Your task to perform on an android device: turn on translation in the chrome app Image 0: 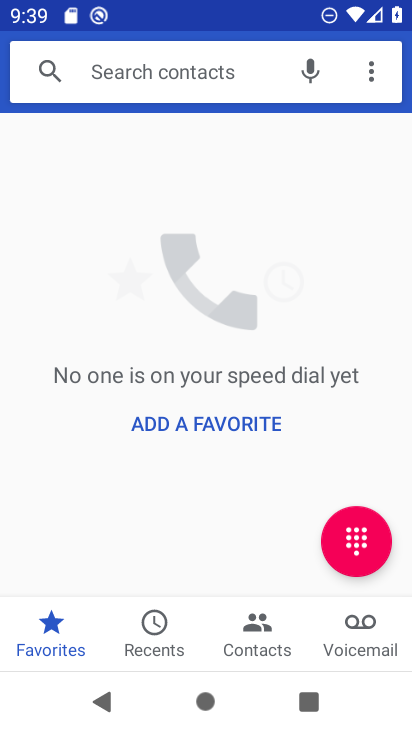
Step 0: press home button
Your task to perform on an android device: turn on translation in the chrome app Image 1: 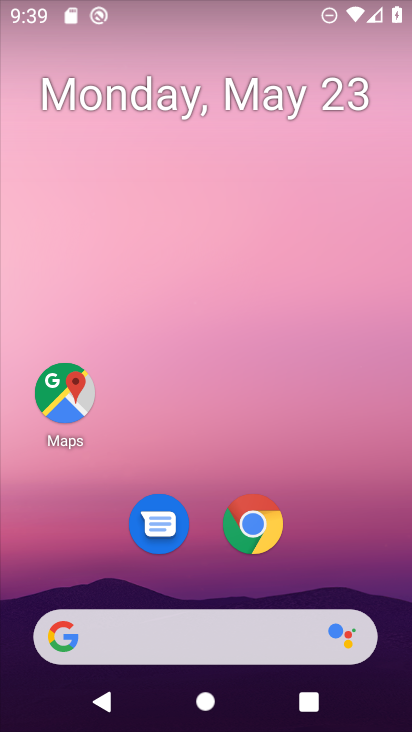
Step 1: click (263, 513)
Your task to perform on an android device: turn on translation in the chrome app Image 2: 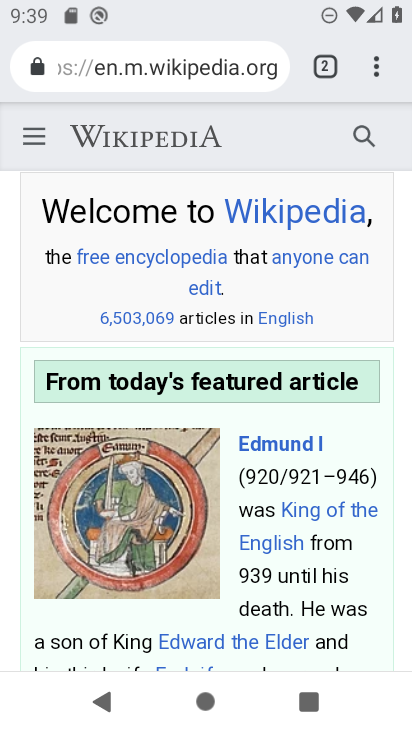
Step 2: click (266, 534)
Your task to perform on an android device: turn on translation in the chrome app Image 3: 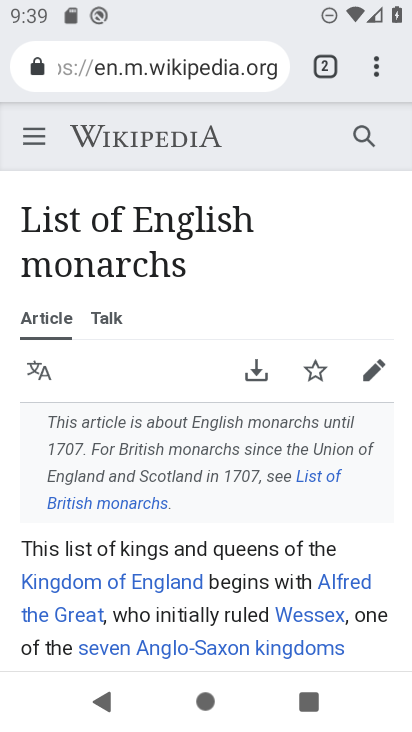
Step 3: click (374, 61)
Your task to perform on an android device: turn on translation in the chrome app Image 4: 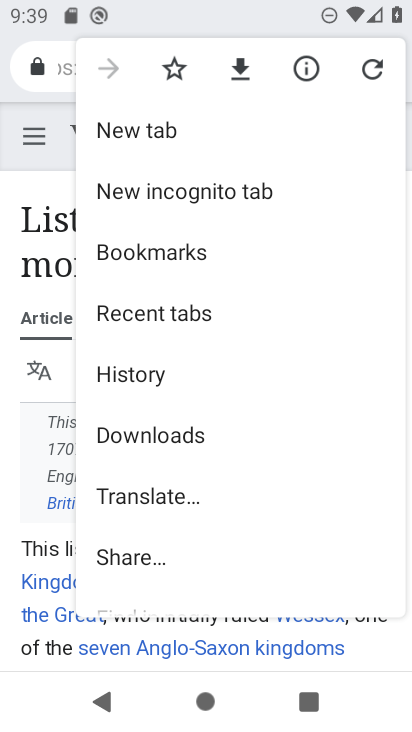
Step 4: drag from (214, 478) to (242, 198)
Your task to perform on an android device: turn on translation in the chrome app Image 5: 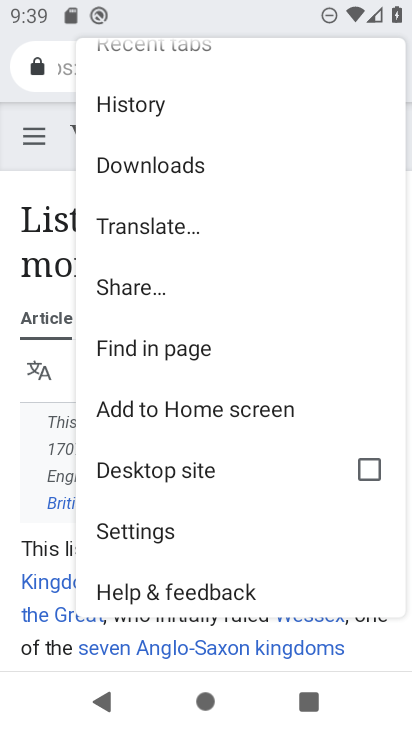
Step 5: click (164, 532)
Your task to perform on an android device: turn on translation in the chrome app Image 6: 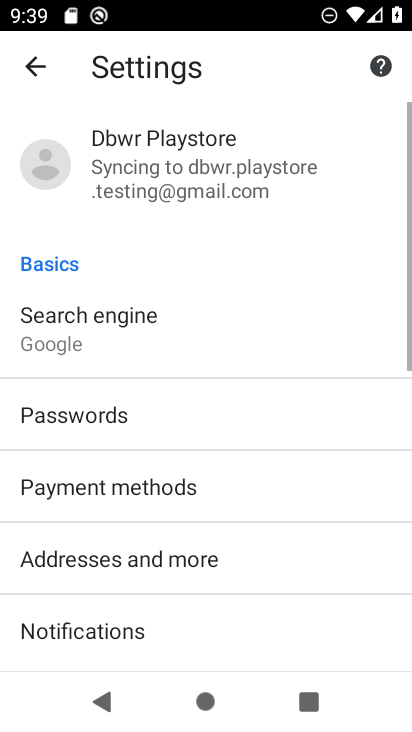
Step 6: drag from (243, 515) to (291, 107)
Your task to perform on an android device: turn on translation in the chrome app Image 7: 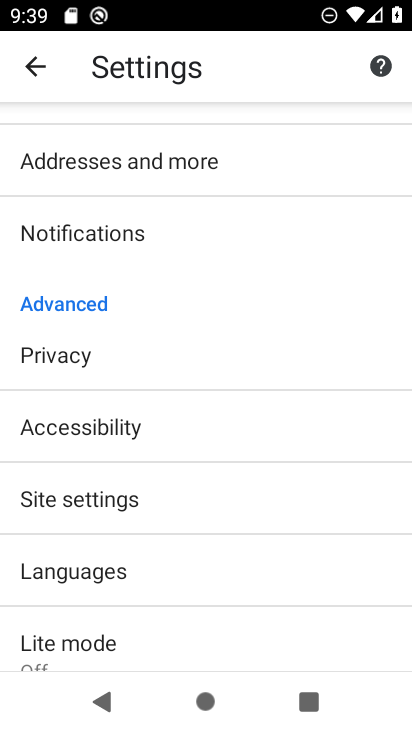
Step 7: click (175, 572)
Your task to perform on an android device: turn on translation in the chrome app Image 8: 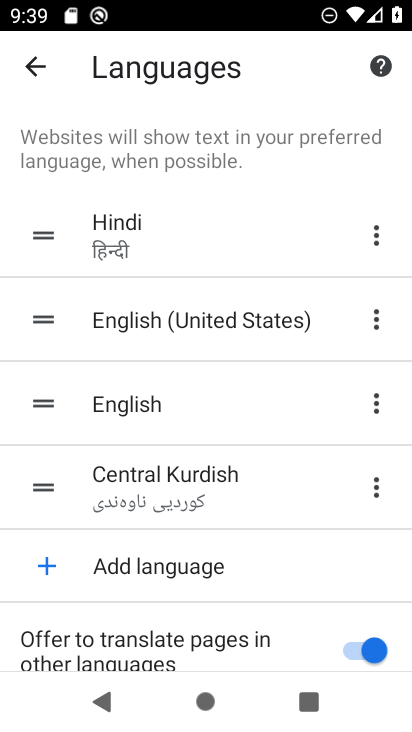
Step 8: task complete